Your task to perform on an android device: Open my contact list Image 0: 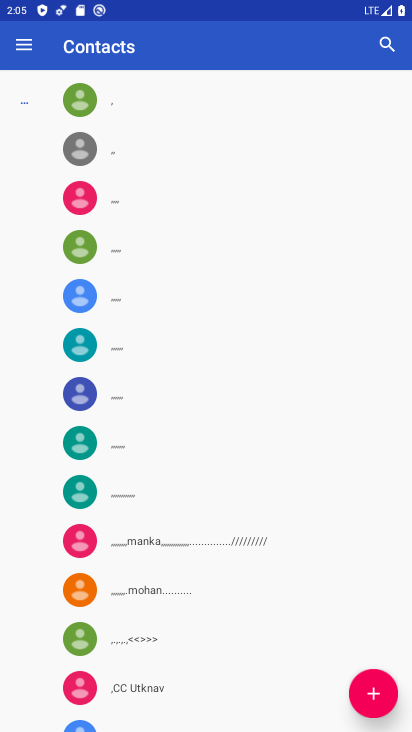
Step 0: drag from (171, 617) to (177, 344)
Your task to perform on an android device: Open my contact list Image 1: 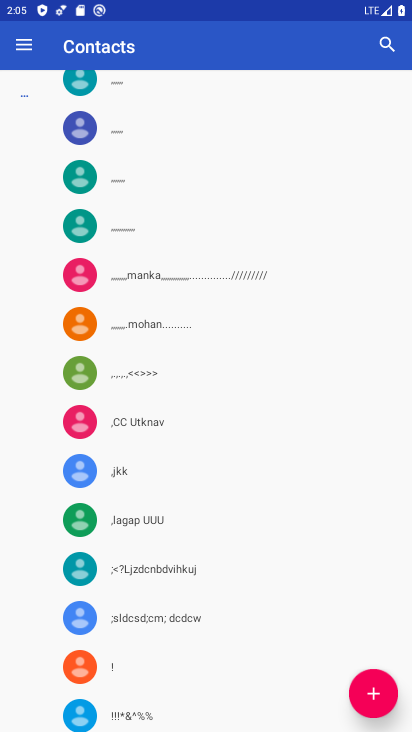
Step 1: task complete